Your task to perform on an android device: move an email to a new category in the gmail app Image 0: 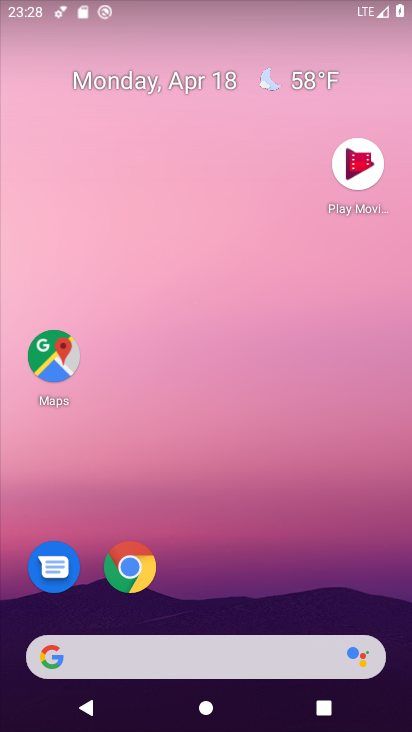
Step 0: drag from (197, 587) to (284, 41)
Your task to perform on an android device: move an email to a new category in the gmail app Image 1: 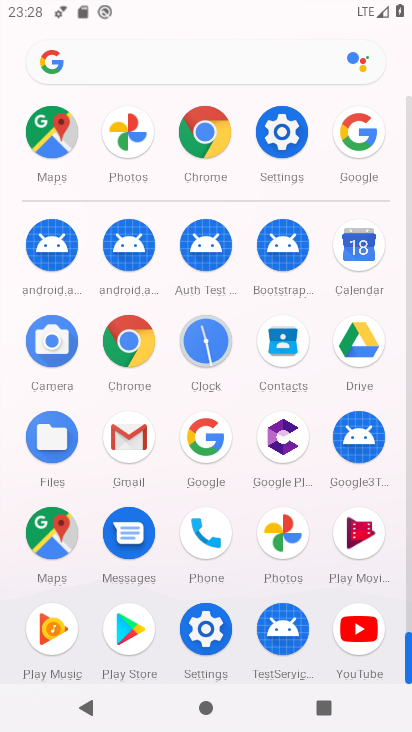
Step 1: click (121, 436)
Your task to perform on an android device: move an email to a new category in the gmail app Image 2: 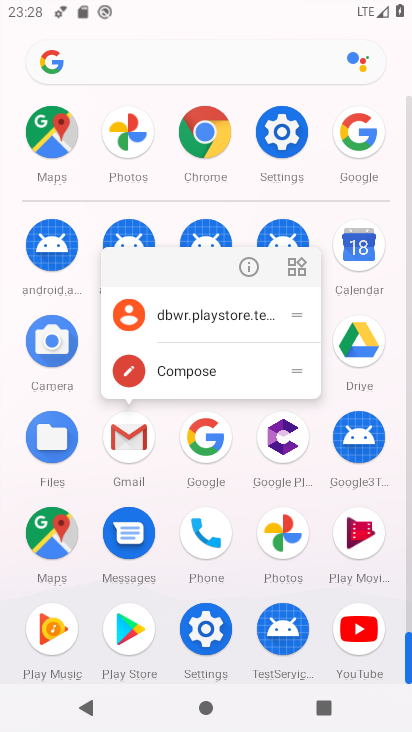
Step 2: click (257, 264)
Your task to perform on an android device: move an email to a new category in the gmail app Image 3: 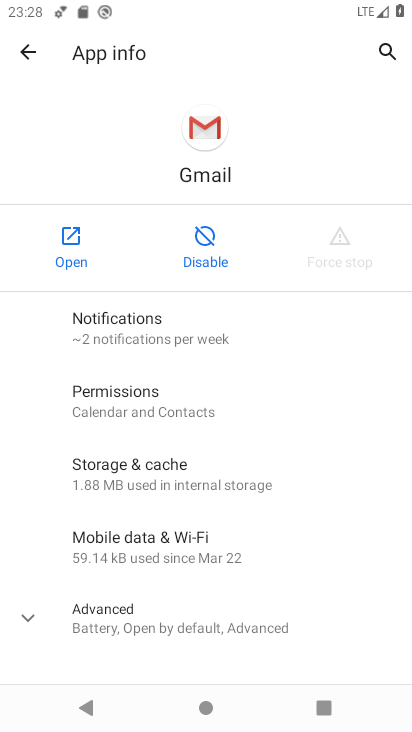
Step 3: click (65, 249)
Your task to perform on an android device: move an email to a new category in the gmail app Image 4: 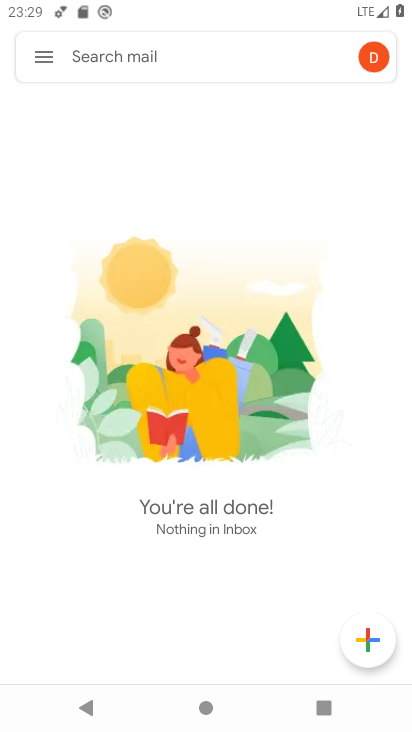
Step 4: drag from (294, 218) to (297, 49)
Your task to perform on an android device: move an email to a new category in the gmail app Image 5: 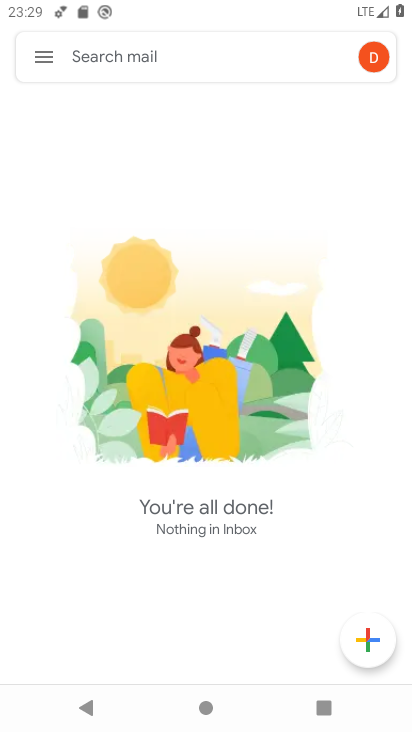
Step 5: click (40, 66)
Your task to perform on an android device: move an email to a new category in the gmail app Image 6: 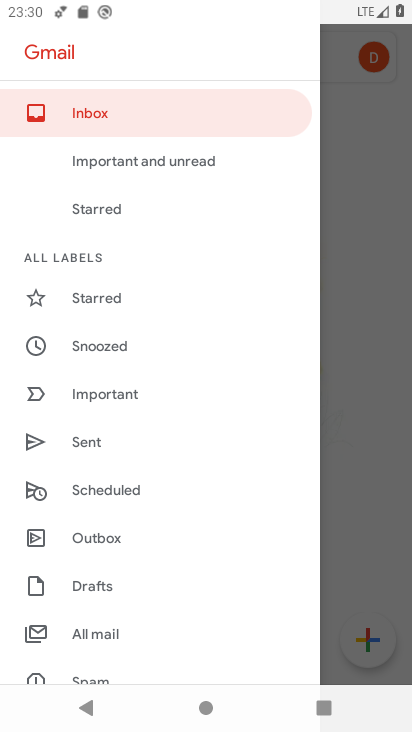
Step 6: task complete